Your task to perform on an android device: check data usage Image 0: 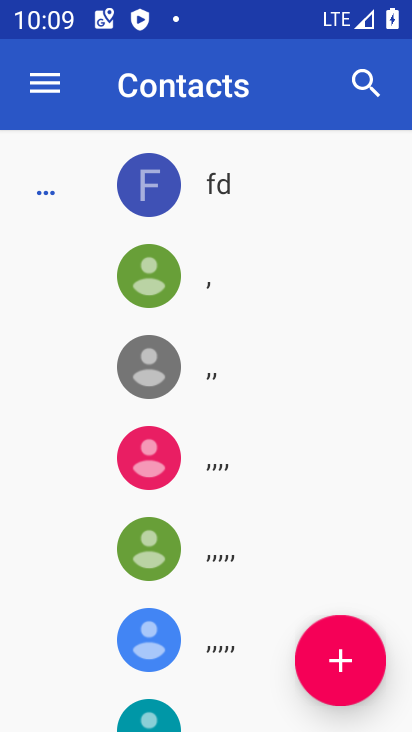
Step 0: press home button
Your task to perform on an android device: check data usage Image 1: 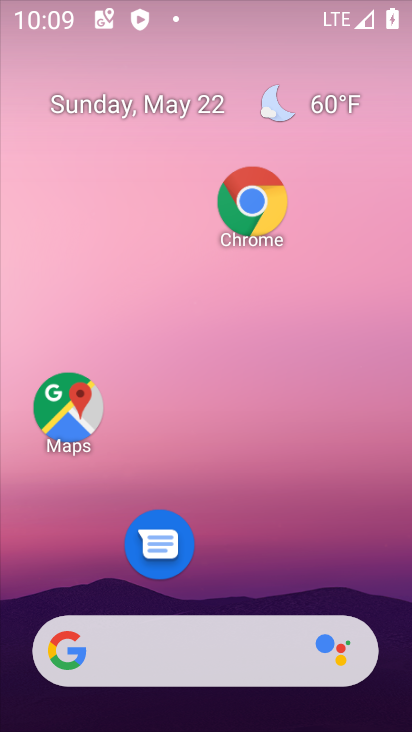
Step 1: drag from (270, 540) to (277, 64)
Your task to perform on an android device: check data usage Image 2: 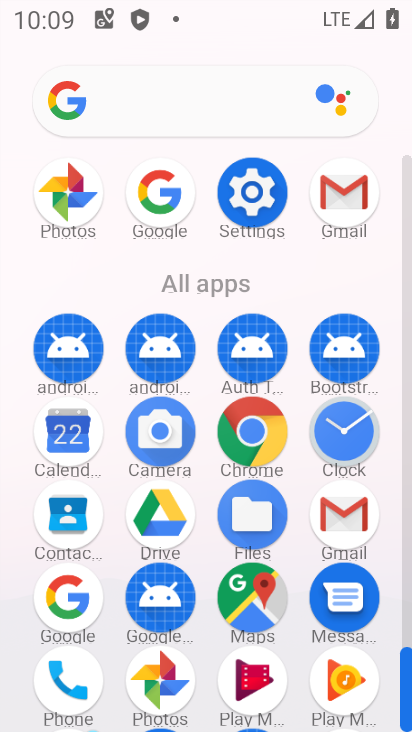
Step 2: click (247, 191)
Your task to perform on an android device: check data usage Image 3: 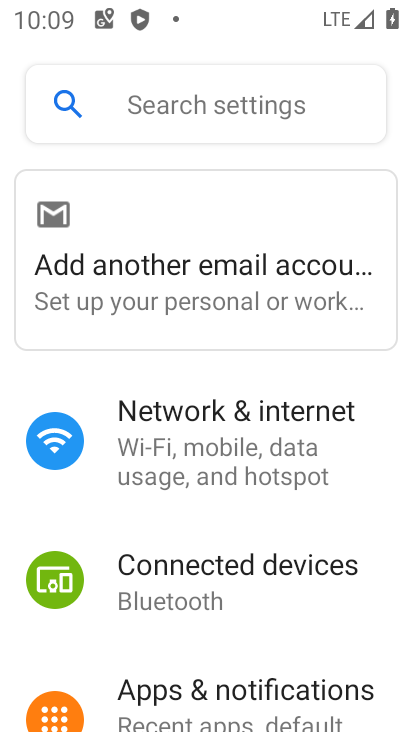
Step 3: click (254, 508)
Your task to perform on an android device: check data usage Image 4: 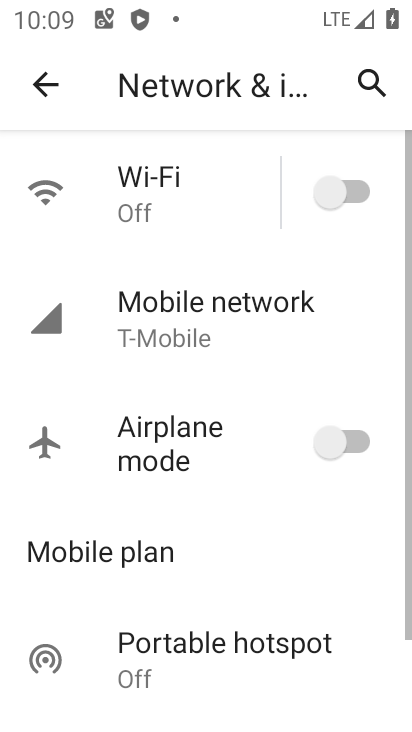
Step 4: click (216, 322)
Your task to perform on an android device: check data usage Image 5: 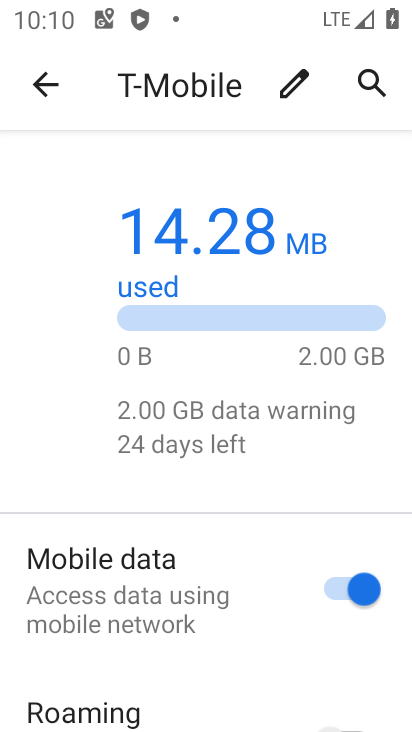
Step 5: task complete